Your task to perform on an android device: find photos in the google photos app Image 0: 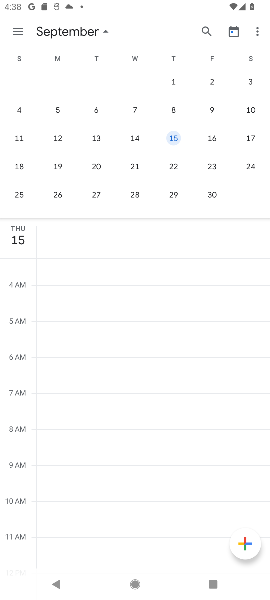
Step 0: press back button
Your task to perform on an android device: find photos in the google photos app Image 1: 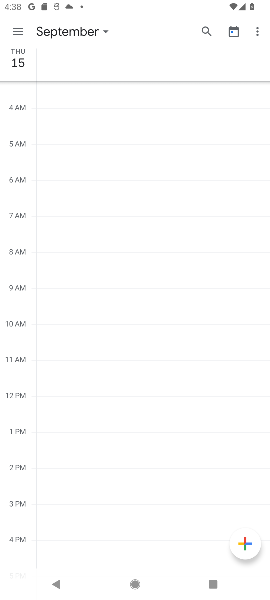
Step 1: press back button
Your task to perform on an android device: find photos in the google photos app Image 2: 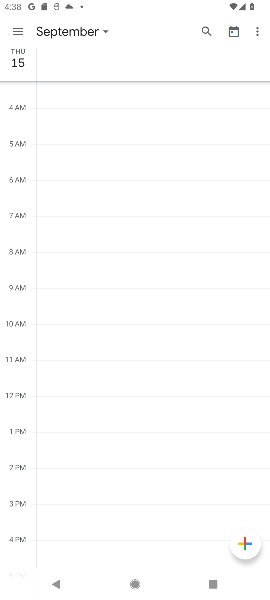
Step 2: press back button
Your task to perform on an android device: find photos in the google photos app Image 3: 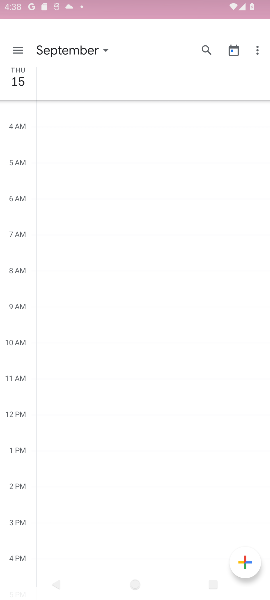
Step 3: press back button
Your task to perform on an android device: find photos in the google photos app Image 4: 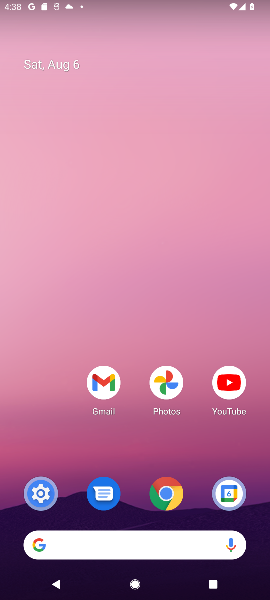
Step 4: press back button
Your task to perform on an android device: find photos in the google photos app Image 5: 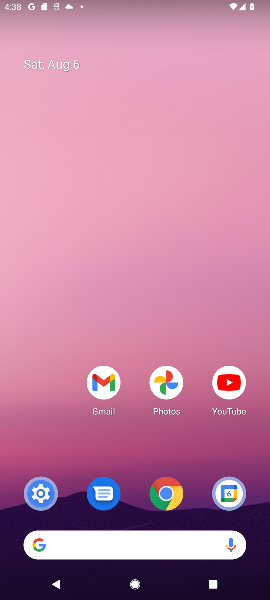
Step 5: drag from (150, 374) to (125, 220)
Your task to perform on an android device: find photos in the google photos app Image 6: 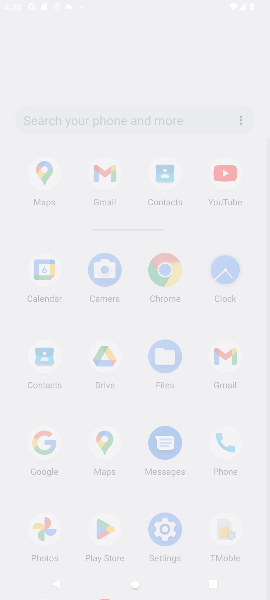
Step 6: drag from (174, 487) to (158, 229)
Your task to perform on an android device: find photos in the google photos app Image 7: 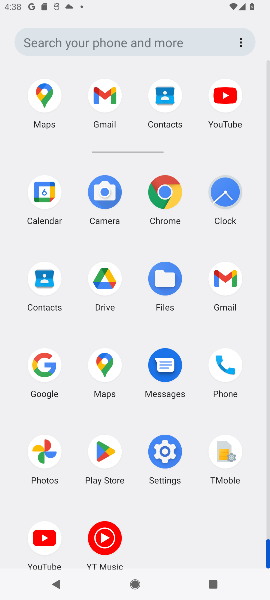
Step 7: click (45, 449)
Your task to perform on an android device: find photos in the google photos app Image 8: 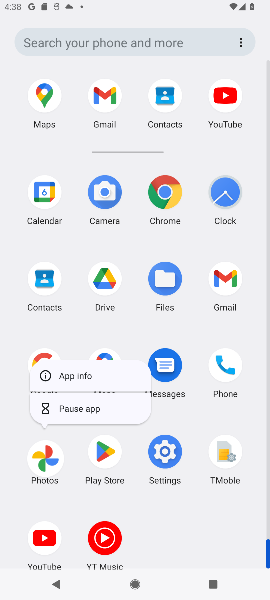
Step 8: click (46, 456)
Your task to perform on an android device: find photos in the google photos app Image 9: 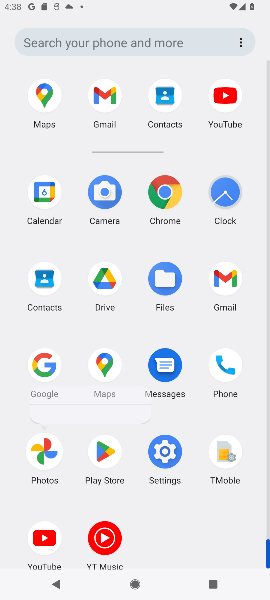
Step 9: click (45, 457)
Your task to perform on an android device: find photos in the google photos app Image 10: 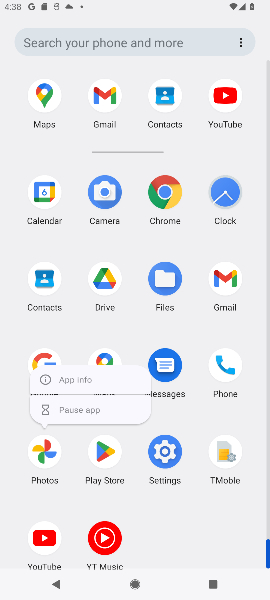
Step 10: click (44, 457)
Your task to perform on an android device: find photos in the google photos app Image 11: 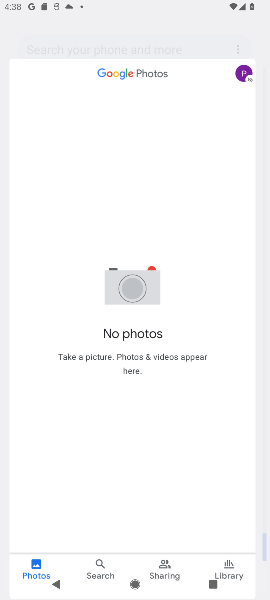
Step 11: click (43, 455)
Your task to perform on an android device: find photos in the google photos app Image 12: 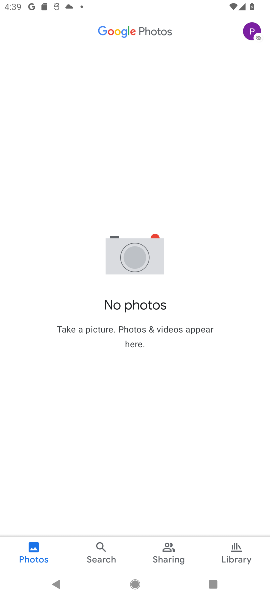
Step 12: click (31, 545)
Your task to perform on an android device: find photos in the google photos app Image 13: 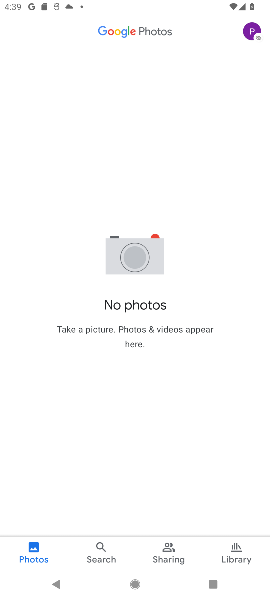
Step 13: click (253, 33)
Your task to perform on an android device: find photos in the google photos app Image 14: 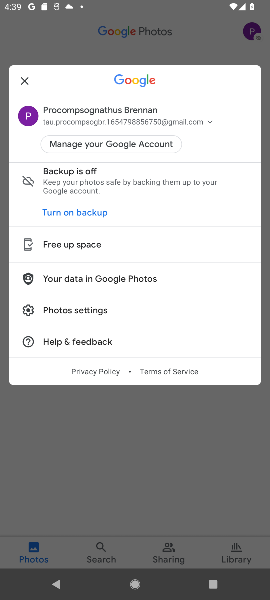
Step 14: click (84, 415)
Your task to perform on an android device: find photos in the google photos app Image 15: 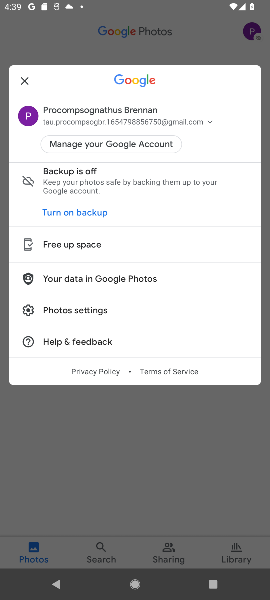
Step 15: click (84, 415)
Your task to perform on an android device: find photos in the google photos app Image 16: 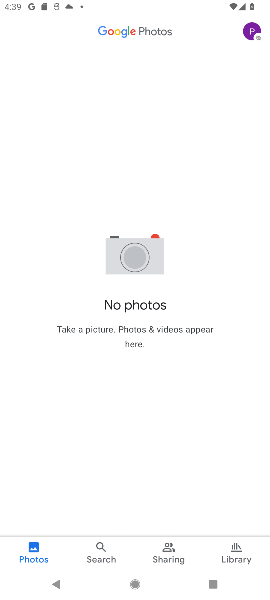
Step 16: click (84, 416)
Your task to perform on an android device: find photos in the google photos app Image 17: 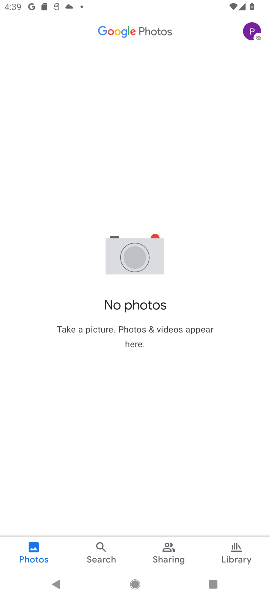
Step 17: task complete